Your task to perform on an android device: Look up the best rated hair dryer on Walmart. Image 0: 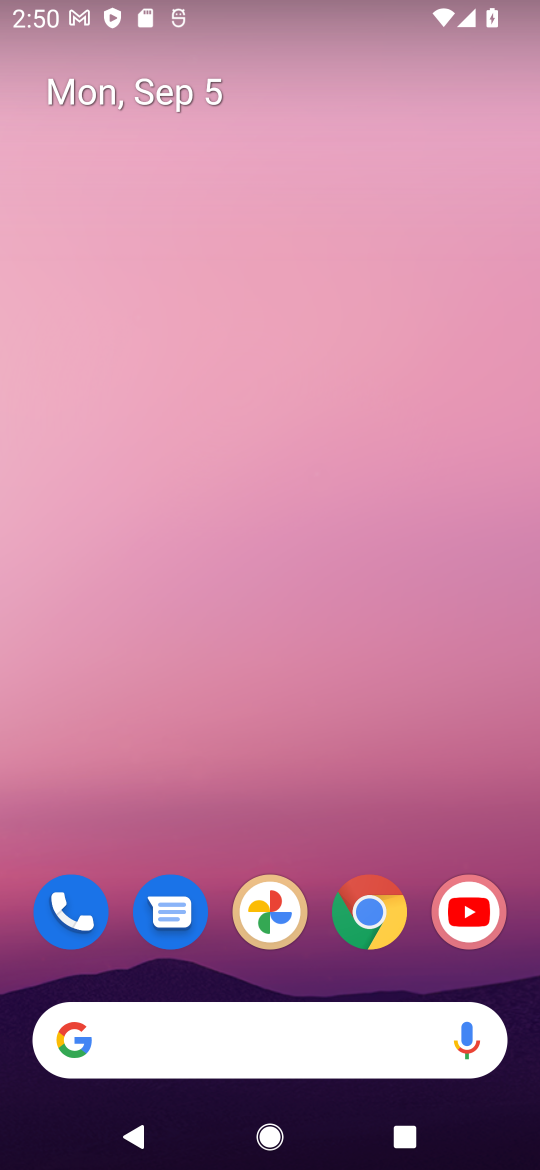
Step 0: click (372, 917)
Your task to perform on an android device: Look up the best rated hair dryer on Walmart. Image 1: 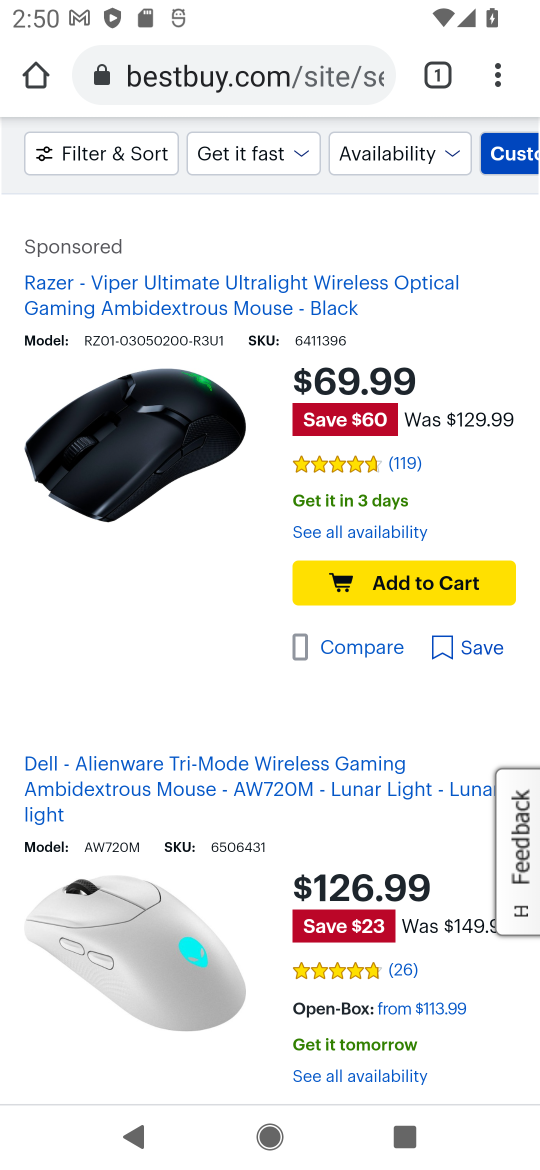
Step 1: click (244, 69)
Your task to perform on an android device: Look up the best rated hair dryer on Walmart. Image 2: 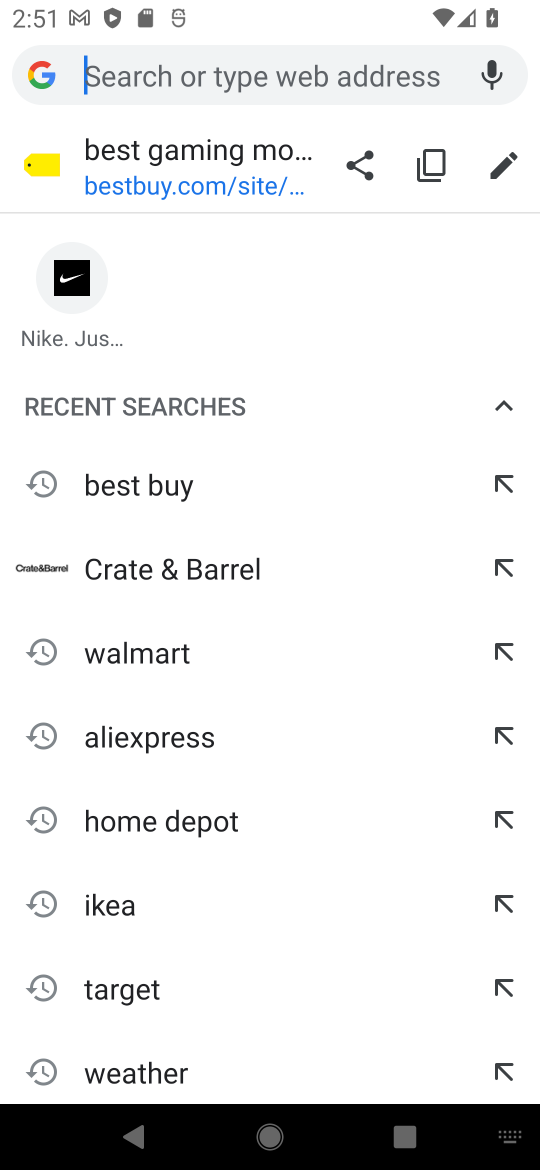
Step 2: type "walmart"
Your task to perform on an android device: Look up the best rated hair dryer on Walmart. Image 3: 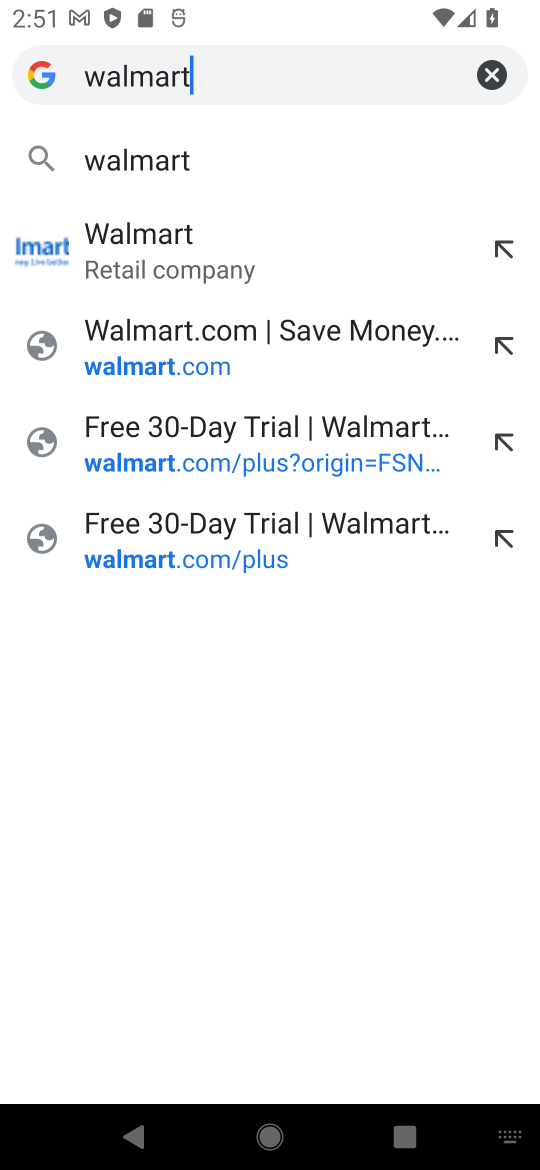
Step 3: type ""
Your task to perform on an android device: Look up the best rated hair dryer on Walmart. Image 4: 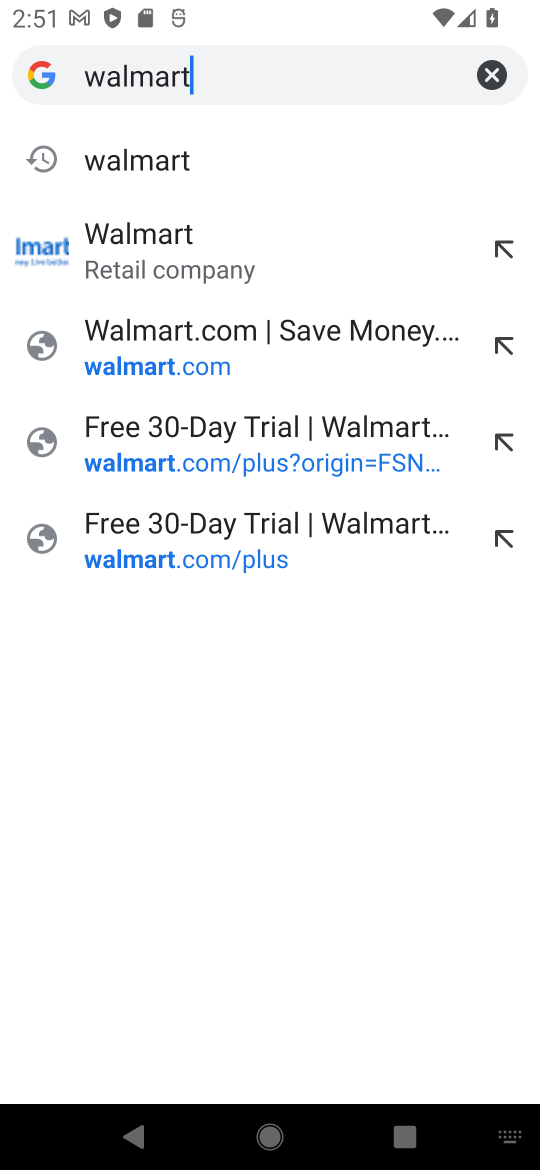
Step 4: press enter
Your task to perform on an android device: Look up the best rated hair dryer on Walmart. Image 5: 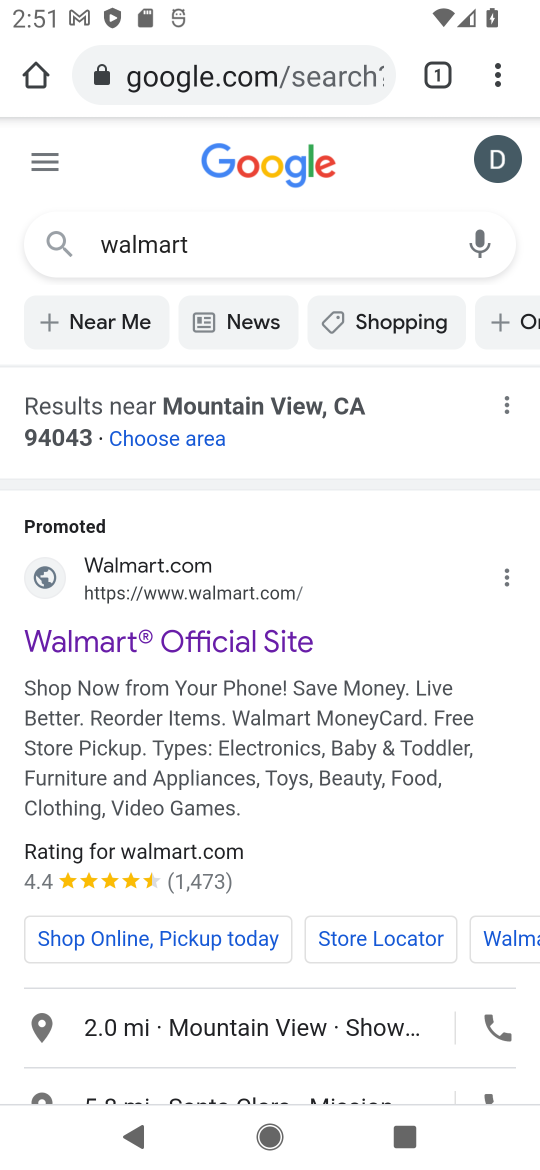
Step 5: click (248, 635)
Your task to perform on an android device: Look up the best rated hair dryer on Walmart. Image 6: 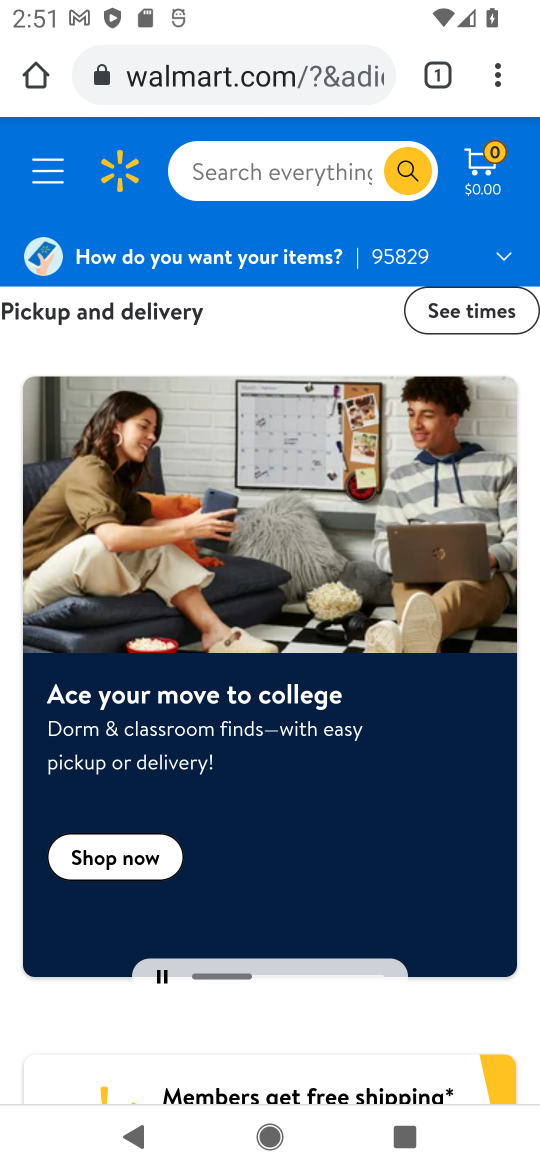
Step 6: click (277, 171)
Your task to perform on an android device: Look up the best rated hair dryer on Walmart. Image 7: 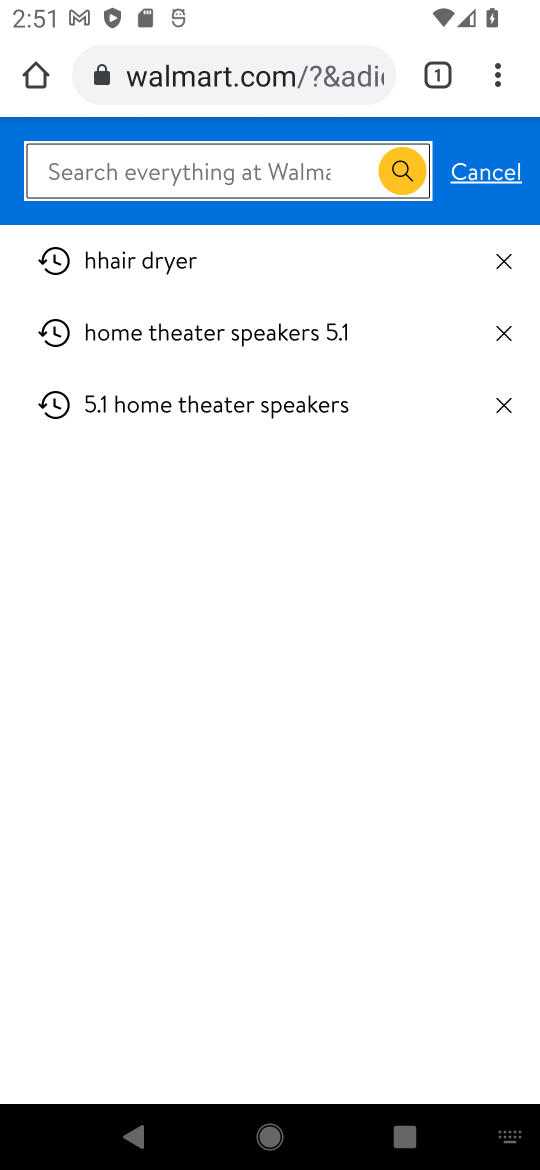
Step 7: type "hair dryer"
Your task to perform on an android device: Look up the best rated hair dryer on Walmart. Image 8: 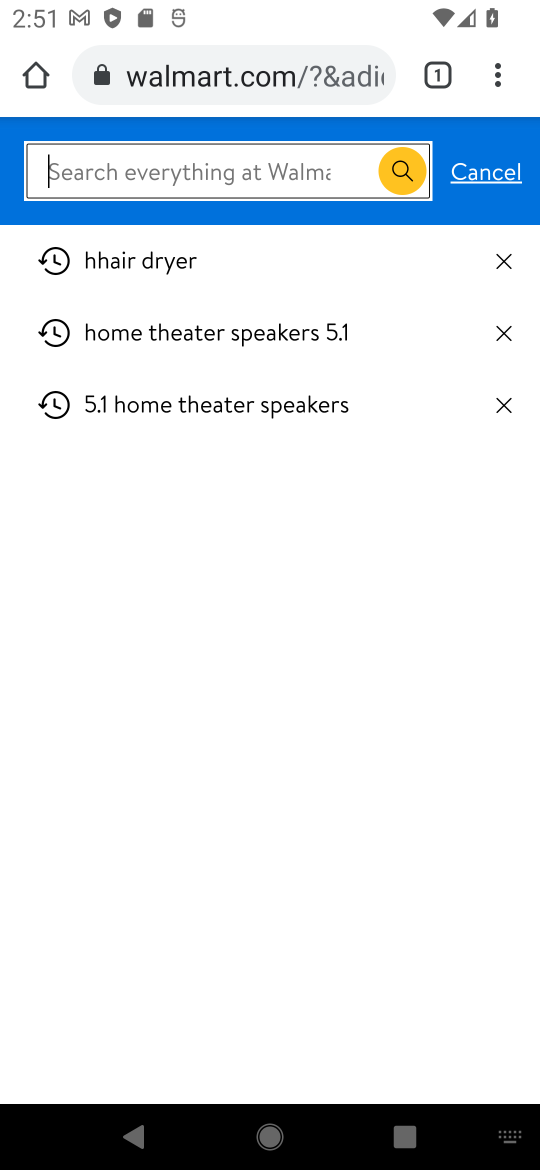
Step 8: type ""
Your task to perform on an android device: Look up the best rated hair dryer on Walmart. Image 9: 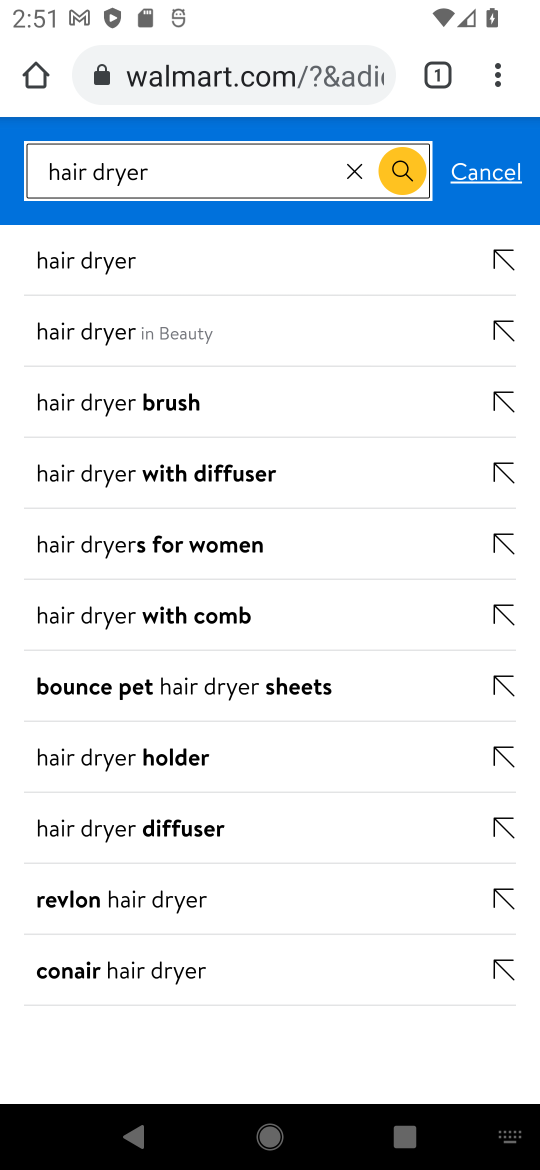
Step 9: press enter
Your task to perform on an android device: Look up the best rated hair dryer on Walmart. Image 10: 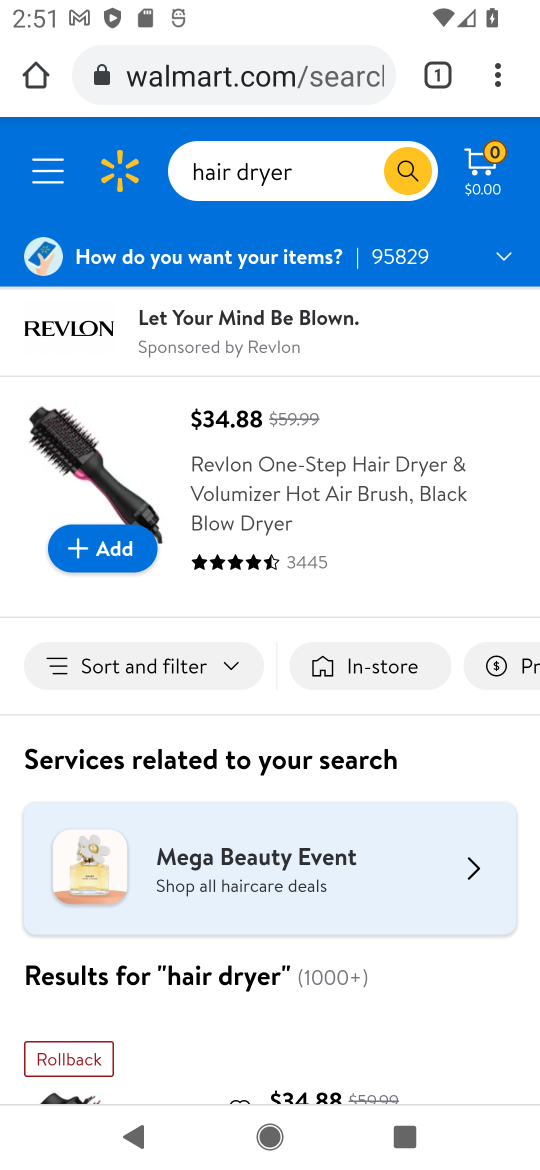
Step 10: click (142, 659)
Your task to perform on an android device: Look up the best rated hair dryer on Walmart. Image 11: 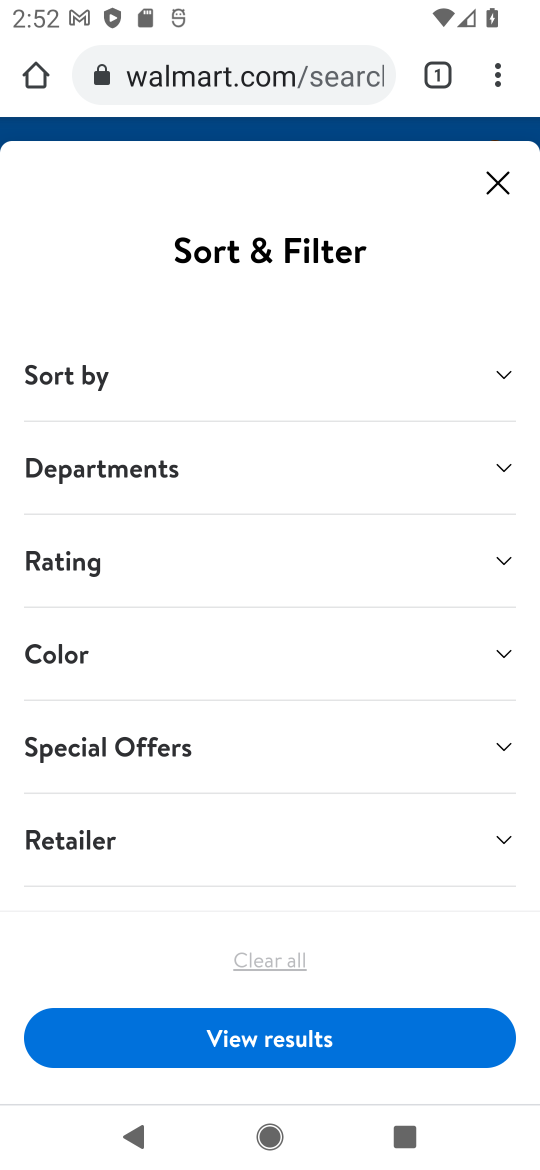
Step 11: click (171, 567)
Your task to perform on an android device: Look up the best rated hair dryer on Walmart. Image 12: 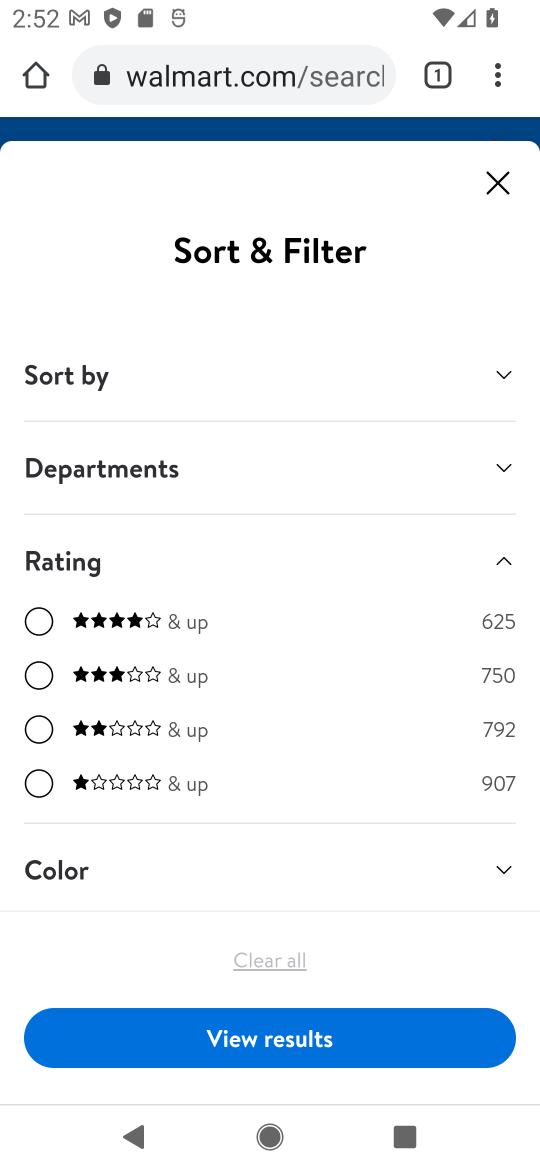
Step 12: click (37, 625)
Your task to perform on an android device: Look up the best rated hair dryer on Walmart. Image 13: 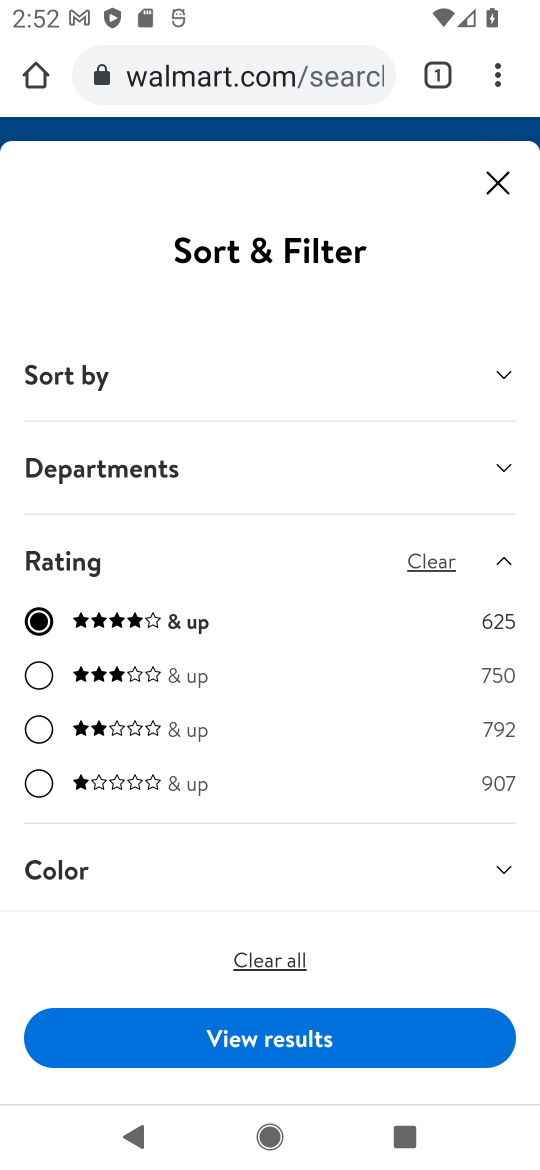
Step 13: click (202, 1058)
Your task to perform on an android device: Look up the best rated hair dryer on Walmart. Image 14: 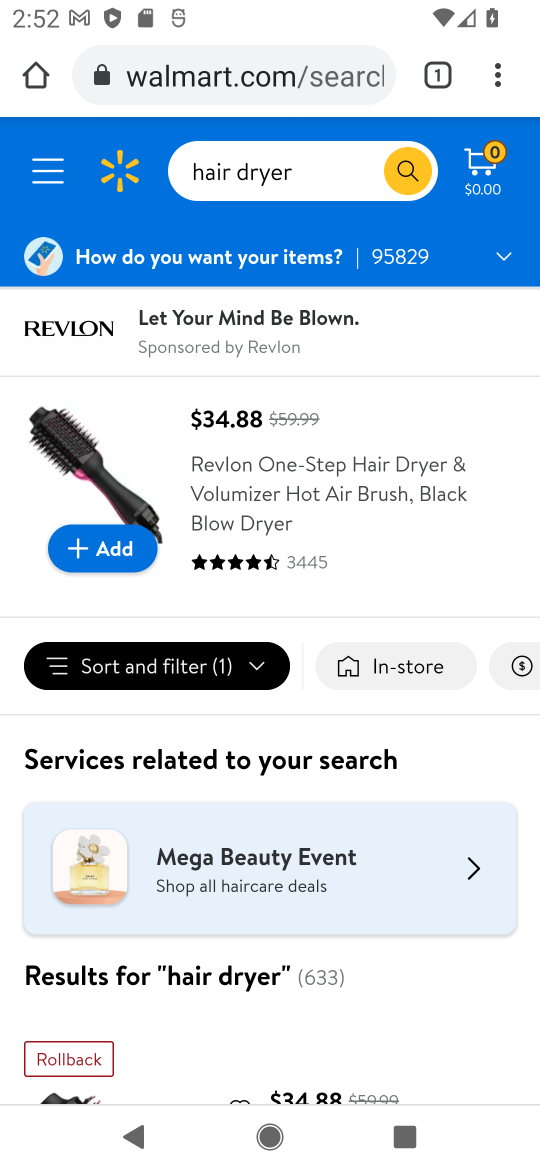
Step 14: task complete